Your task to perform on an android device: Open settings Image 0: 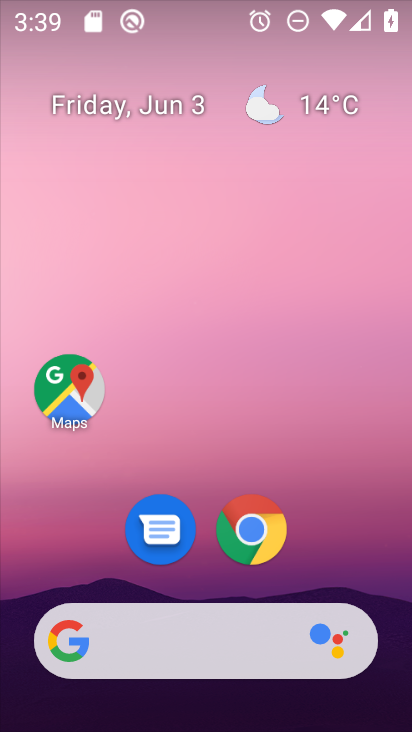
Step 0: drag from (350, 554) to (351, 130)
Your task to perform on an android device: Open settings Image 1: 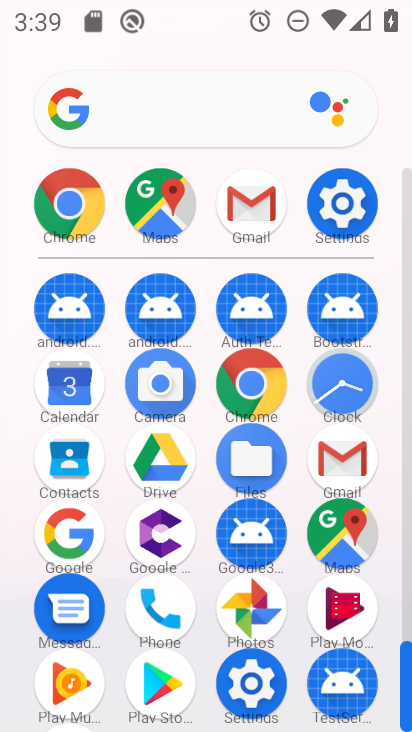
Step 1: click (361, 225)
Your task to perform on an android device: Open settings Image 2: 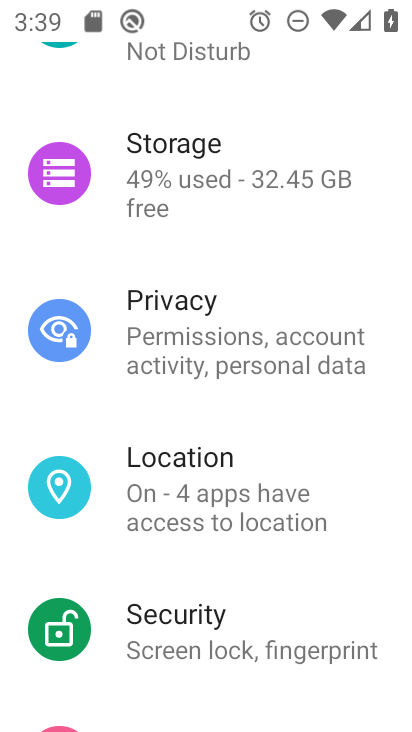
Step 2: task complete